Your task to perform on an android device: Search for pizza restaurants on Maps Image 0: 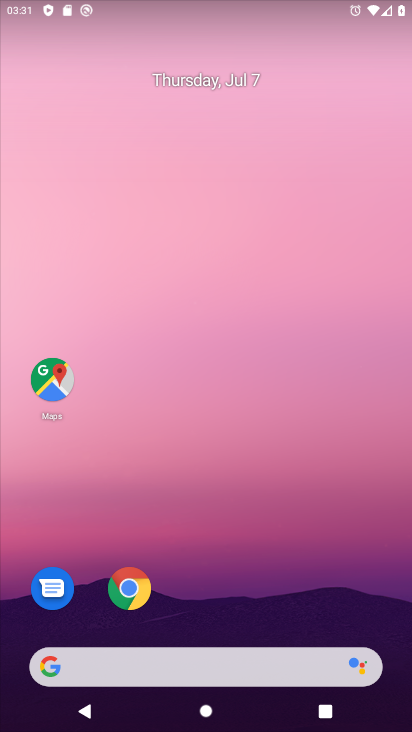
Step 0: click (41, 382)
Your task to perform on an android device: Search for pizza restaurants on Maps Image 1: 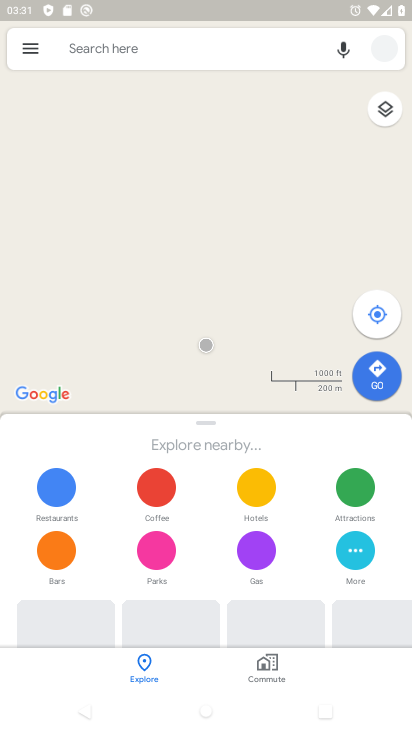
Step 1: click (151, 54)
Your task to perform on an android device: Search for pizza restaurants on Maps Image 2: 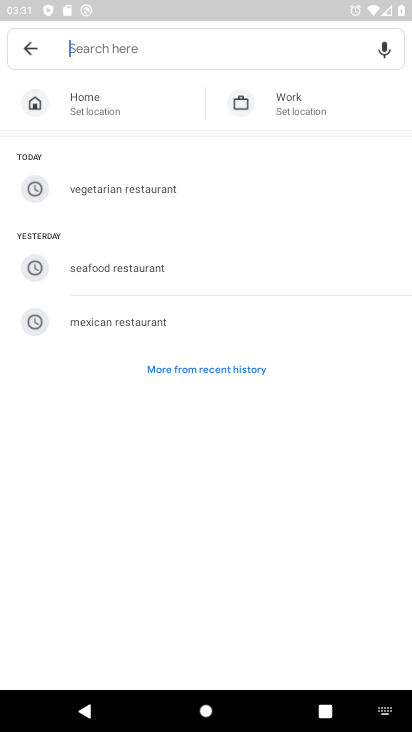
Step 2: click (136, 39)
Your task to perform on an android device: Search for pizza restaurants on Maps Image 3: 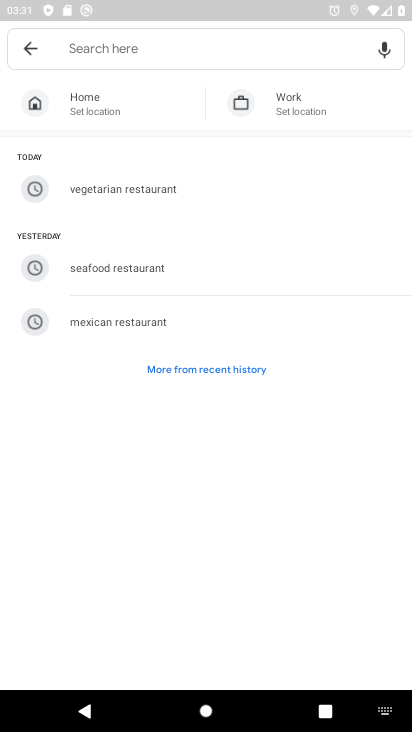
Step 3: type "pizza restaurants"
Your task to perform on an android device: Search for pizza restaurants on Maps Image 4: 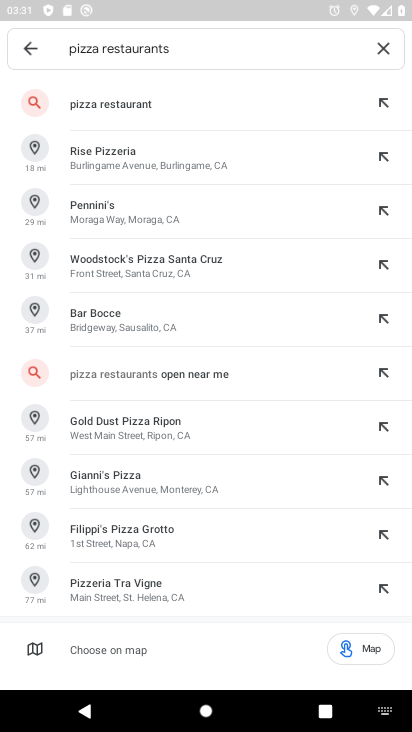
Step 4: click (138, 94)
Your task to perform on an android device: Search for pizza restaurants on Maps Image 5: 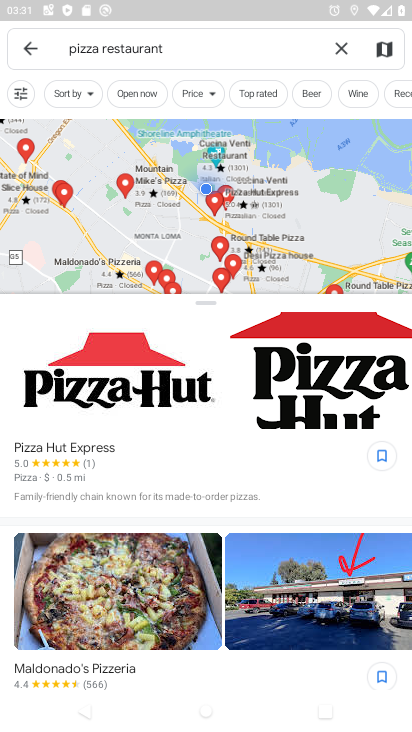
Step 5: task complete